Your task to perform on an android device: turn on sleep mode Image 0: 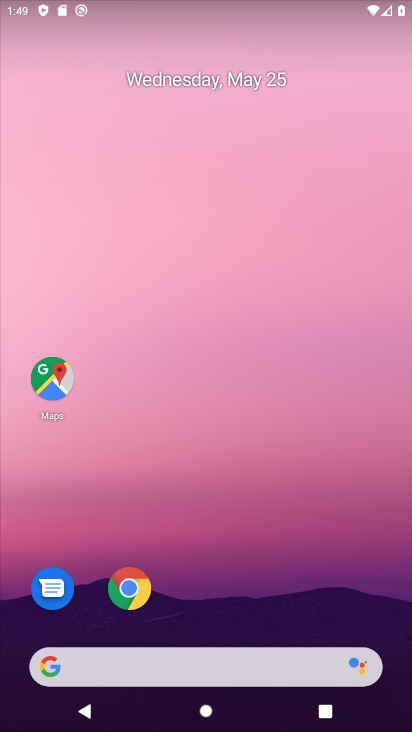
Step 0: drag from (237, 276) to (237, 8)
Your task to perform on an android device: turn on sleep mode Image 1: 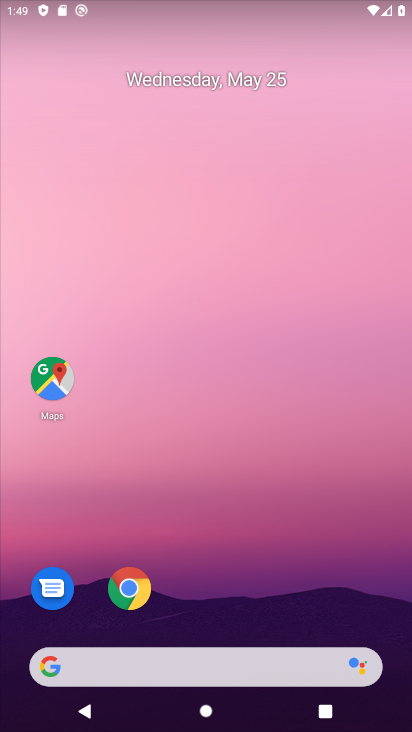
Step 1: drag from (191, 130) to (191, 0)
Your task to perform on an android device: turn on sleep mode Image 2: 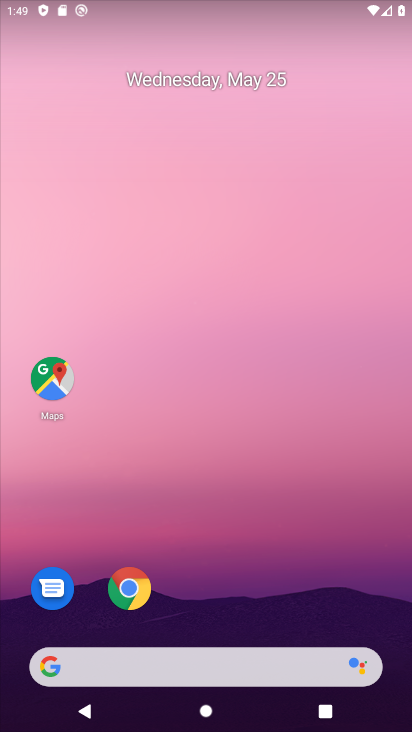
Step 2: drag from (226, 570) to (200, 4)
Your task to perform on an android device: turn on sleep mode Image 3: 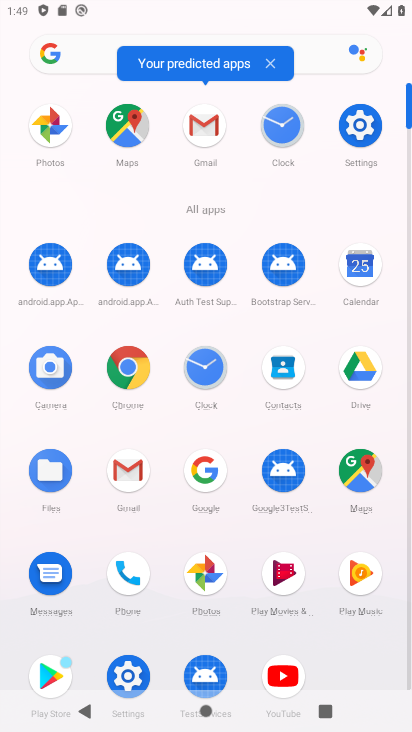
Step 3: drag from (0, 475) to (21, 195)
Your task to perform on an android device: turn on sleep mode Image 4: 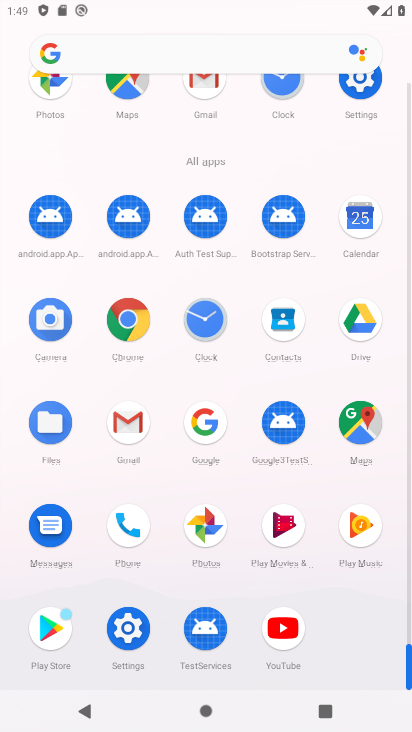
Step 4: drag from (5, 446) to (3, 187)
Your task to perform on an android device: turn on sleep mode Image 5: 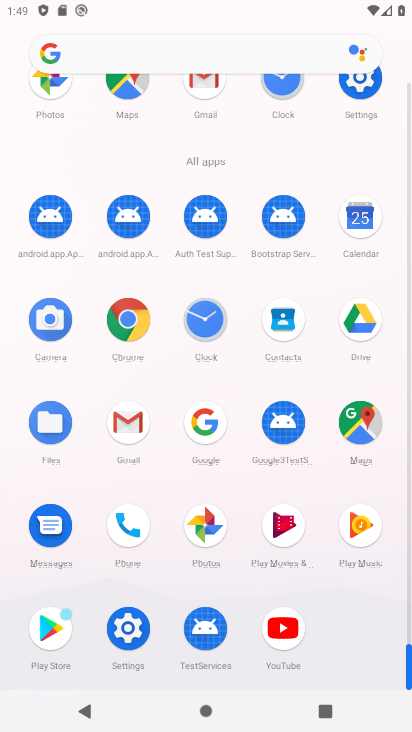
Step 5: click (126, 624)
Your task to perform on an android device: turn on sleep mode Image 6: 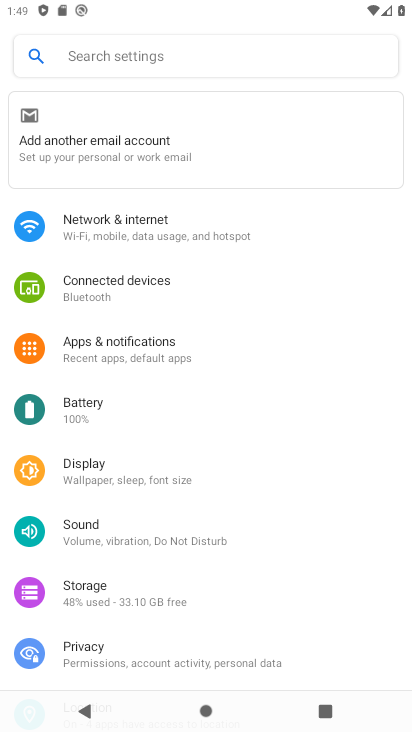
Step 6: click (154, 228)
Your task to perform on an android device: turn on sleep mode Image 7: 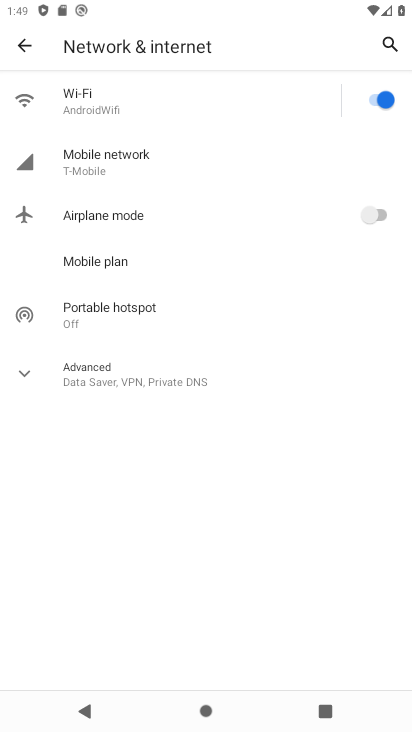
Step 7: click (31, 363)
Your task to perform on an android device: turn on sleep mode Image 8: 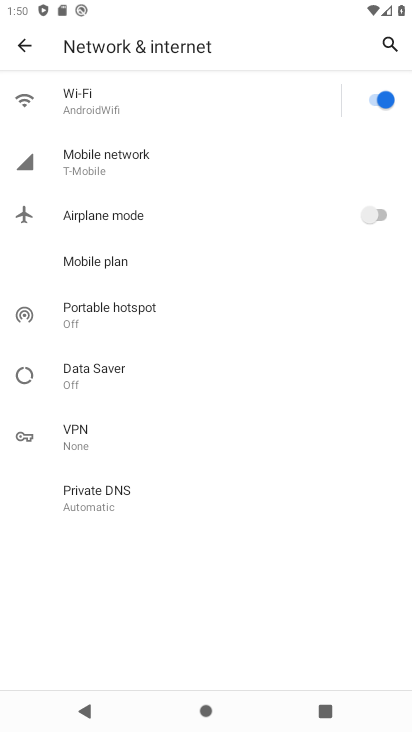
Step 8: task complete